Your task to perform on an android device: What's on my calendar today? Image 0: 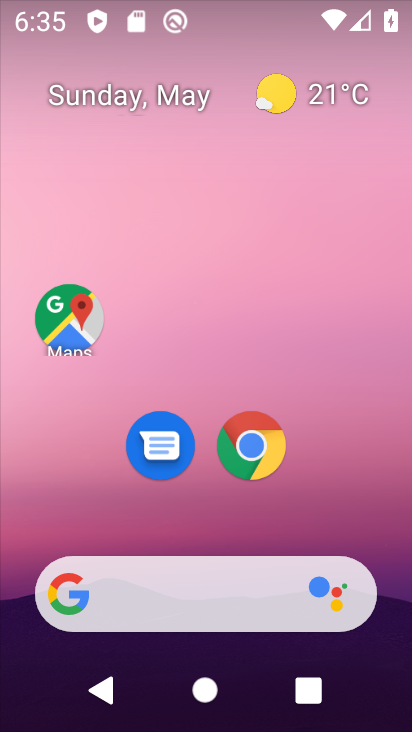
Step 0: drag from (333, 497) to (213, 4)
Your task to perform on an android device: What's on my calendar today? Image 1: 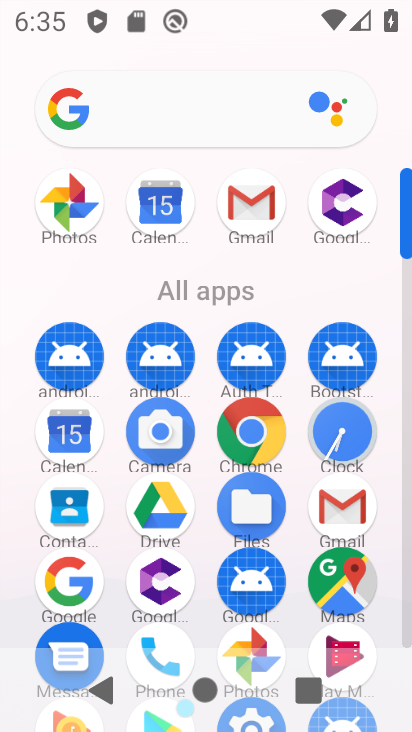
Step 1: click (62, 450)
Your task to perform on an android device: What's on my calendar today? Image 2: 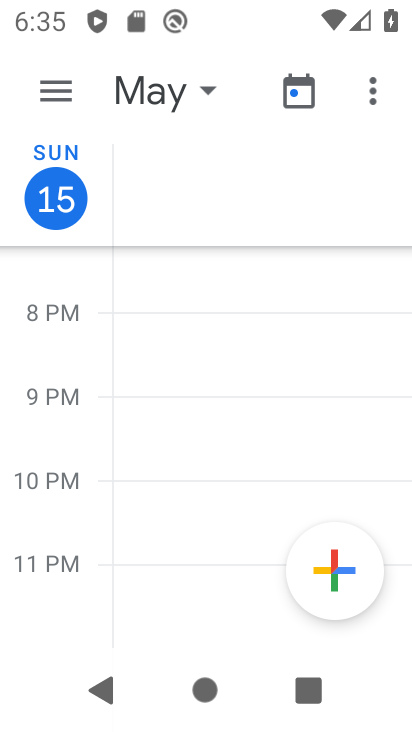
Step 2: task complete